Your task to perform on an android device: refresh tabs in the chrome app Image 0: 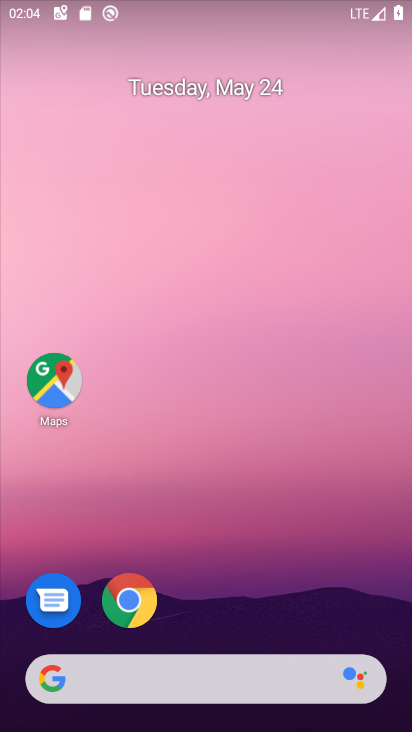
Step 0: click (121, 575)
Your task to perform on an android device: refresh tabs in the chrome app Image 1: 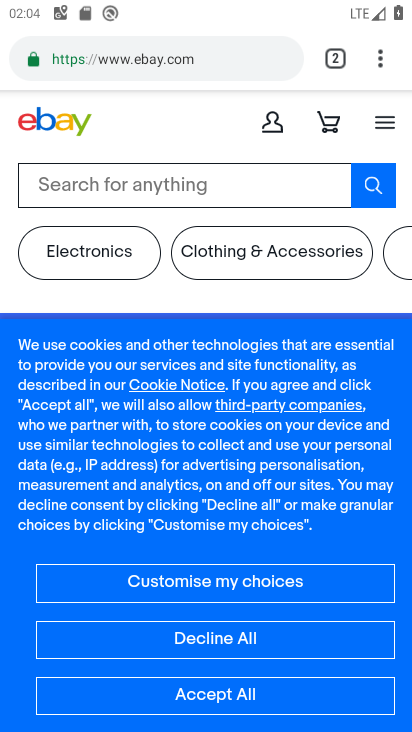
Step 1: click (389, 72)
Your task to perform on an android device: refresh tabs in the chrome app Image 2: 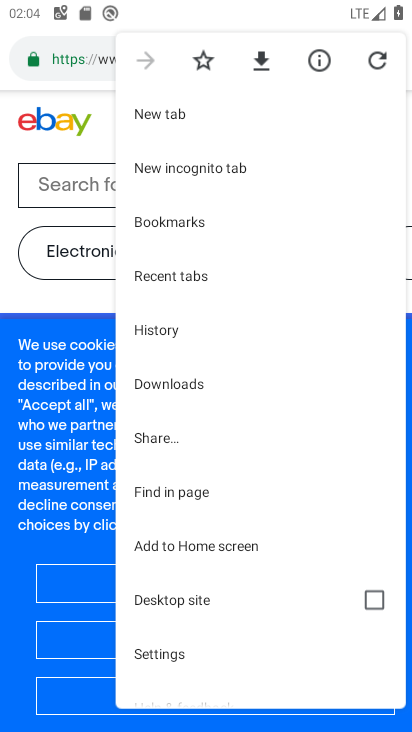
Step 2: click (372, 55)
Your task to perform on an android device: refresh tabs in the chrome app Image 3: 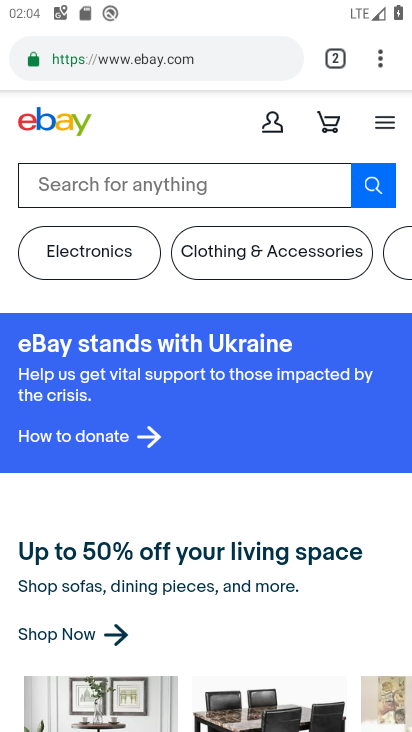
Step 3: task complete